Your task to perform on an android device: set the stopwatch Image 0: 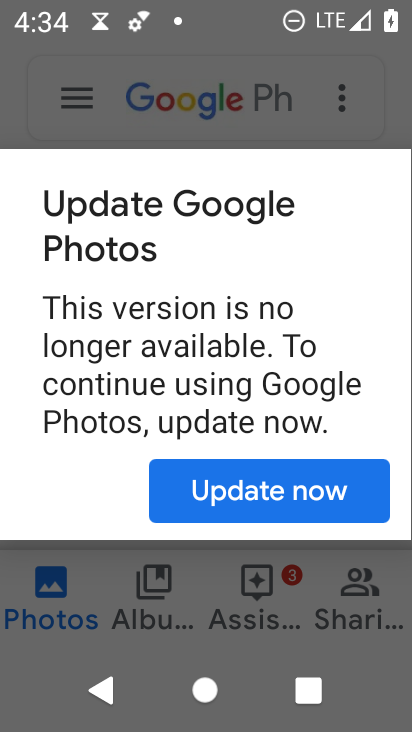
Step 0: press home button
Your task to perform on an android device: set the stopwatch Image 1: 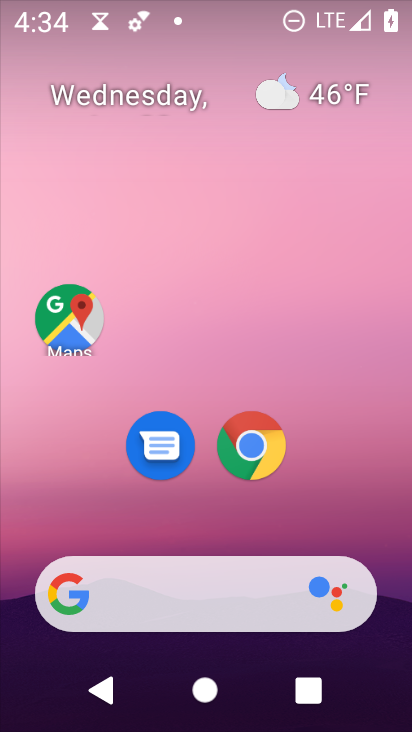
Step 1: drag from (294, 497) to (333, 57)
Your task to perform on an android device: set the stopwatch Image 2: 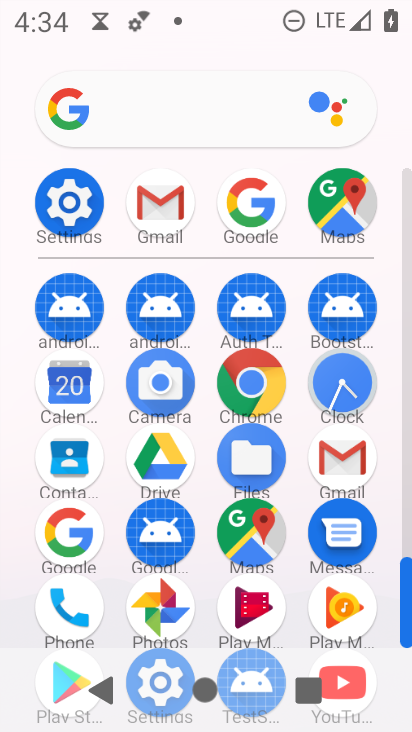
Step 2: click (342, 383)
Your task to perform on an android device: set the stopwatch Image 3: 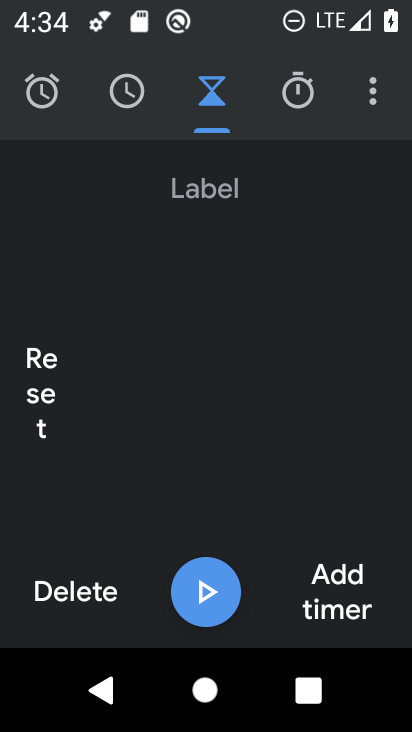
Step 3: click (304, 93)
Your task to perform on an android device: set the stopwatch Image 4: 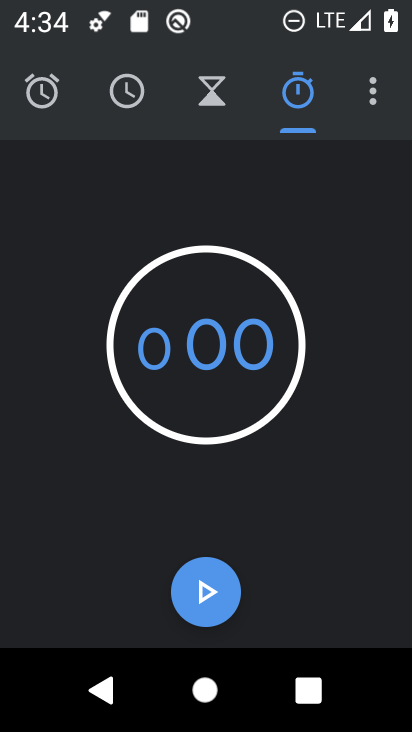
Step 4: click (220, 431)
Your task to perform on an android device: set the stopwatch Image 5: 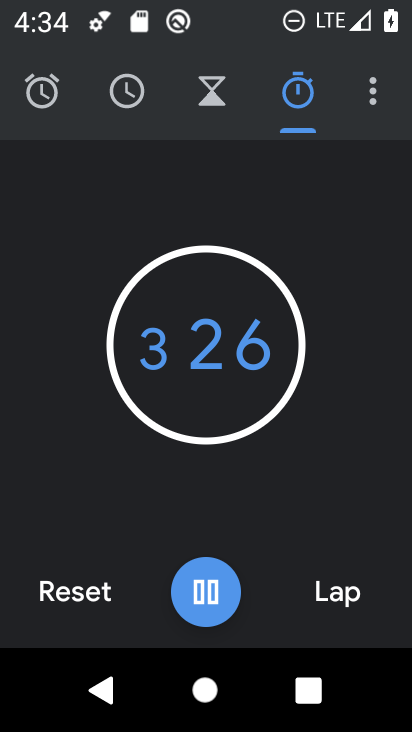
Step 5: click (216, 601)
Your task to perform on an android device: set the stopwatch Image 6: 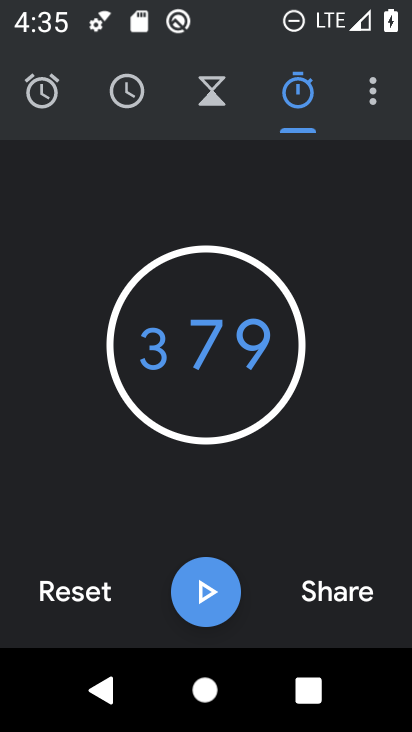
Step 6: task complete